Your task to perform on an android device: turn off location history Image 0: 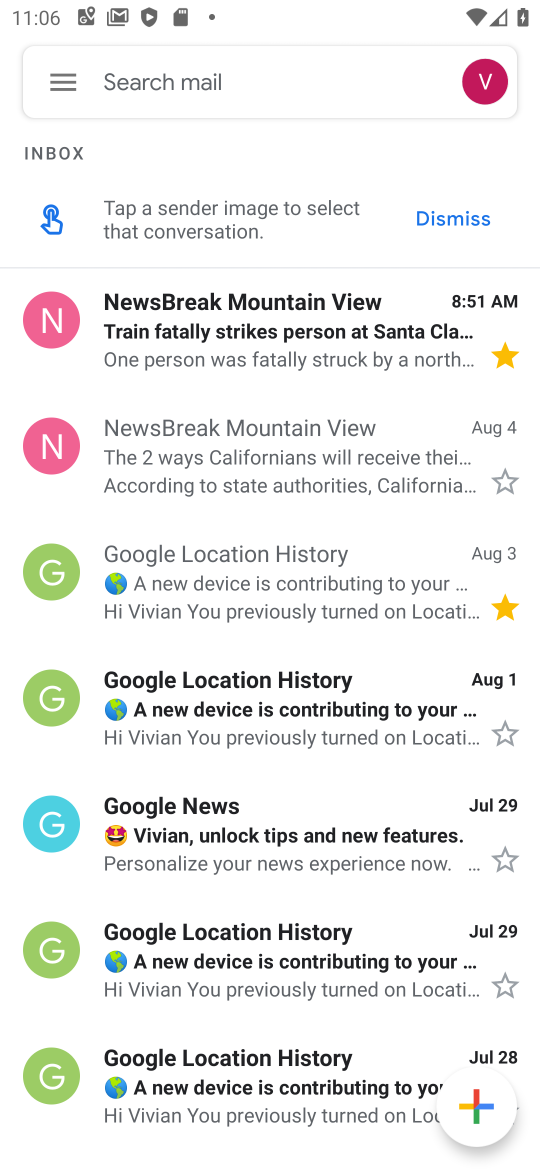
Step 0: press home button
Your task to perform on an android device: turn off location history Image 1: 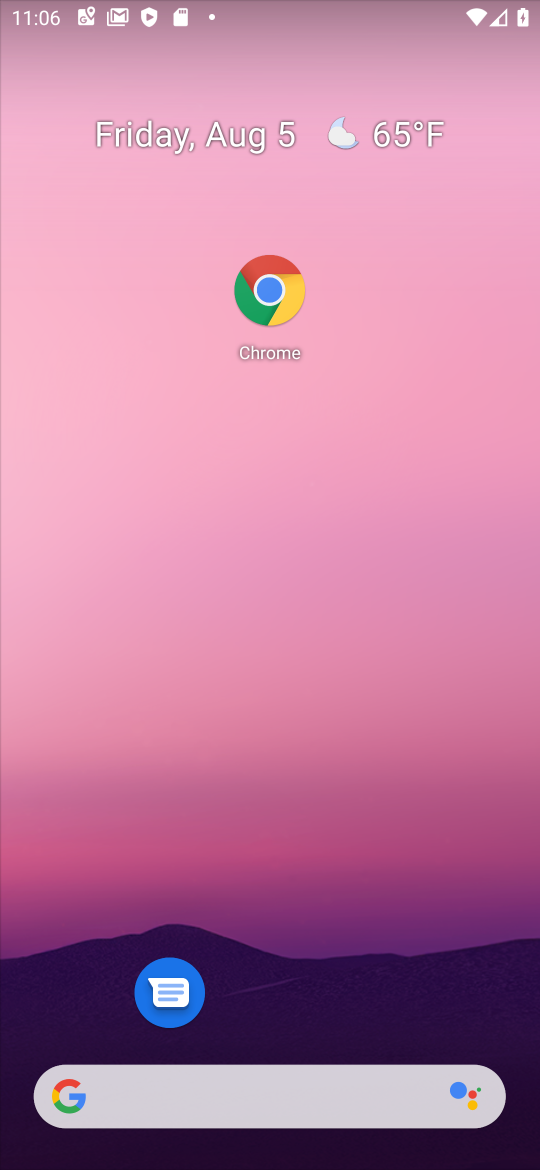
Step 1: drag from (417, 921) to (380, 87)
Your task to perform on an android device: turn off location history Image 2: 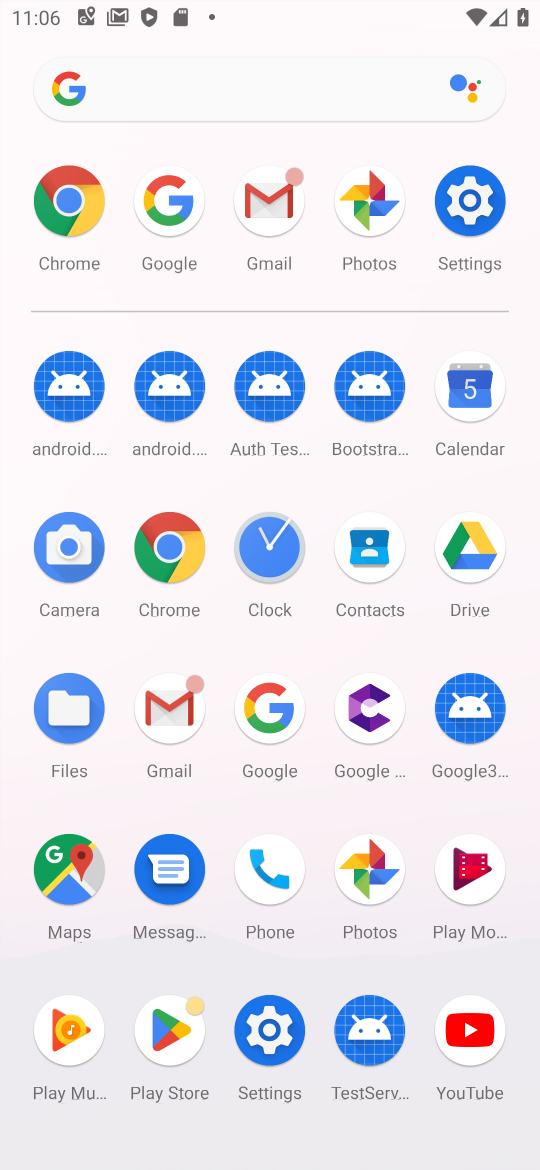
Step 2: click (492, 195)
Your task to perform on an android device: turn off location history Image 3: 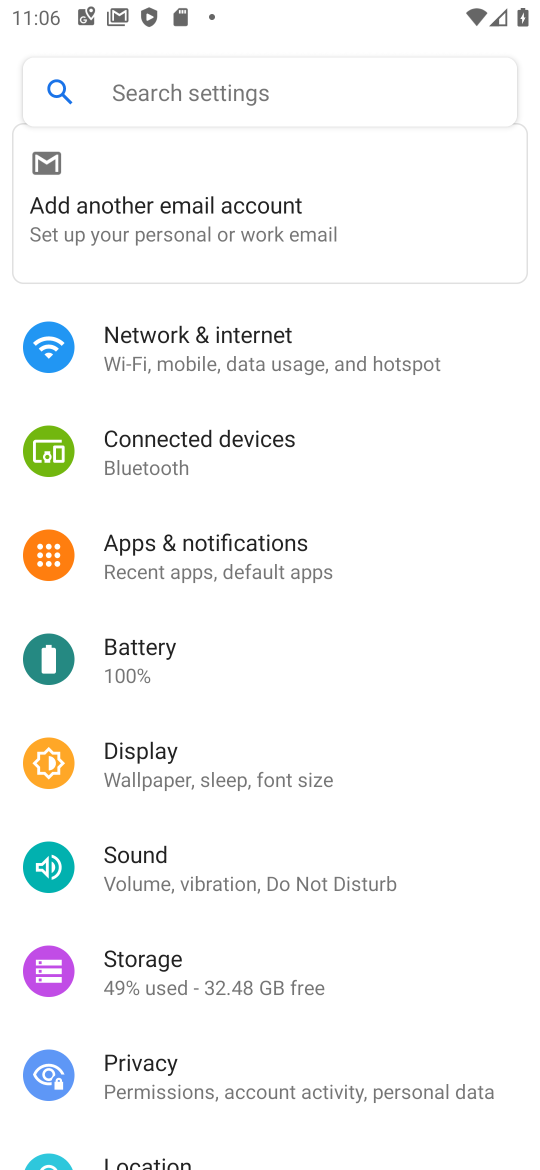
Step 3: drag from (170, 1028) to (133, 487)
Your task to perform on an android device: turn off location history Image 4: 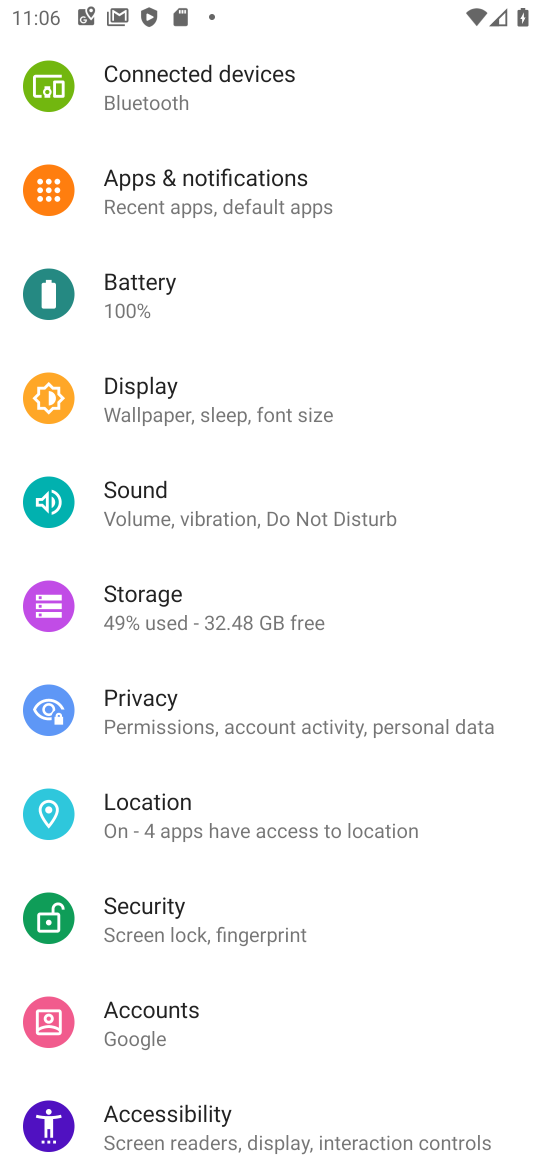
Step 4: click (141, 810)
Your task to perform on an android device: turn off location history Image 5: 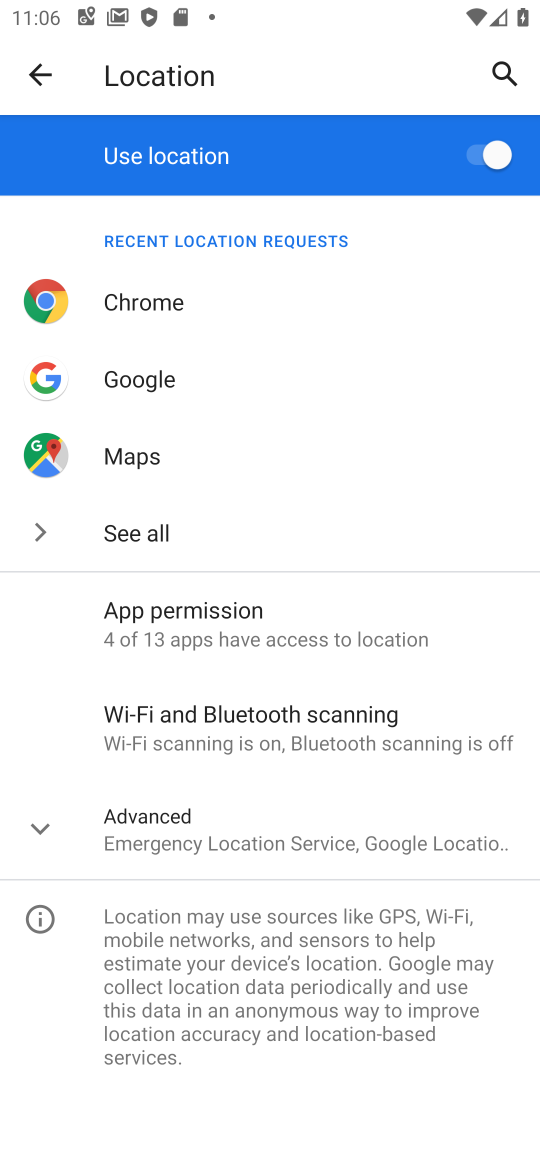
Step 5: click (163, 853)
Your task to perform on an android device: turn off location history Image 6: 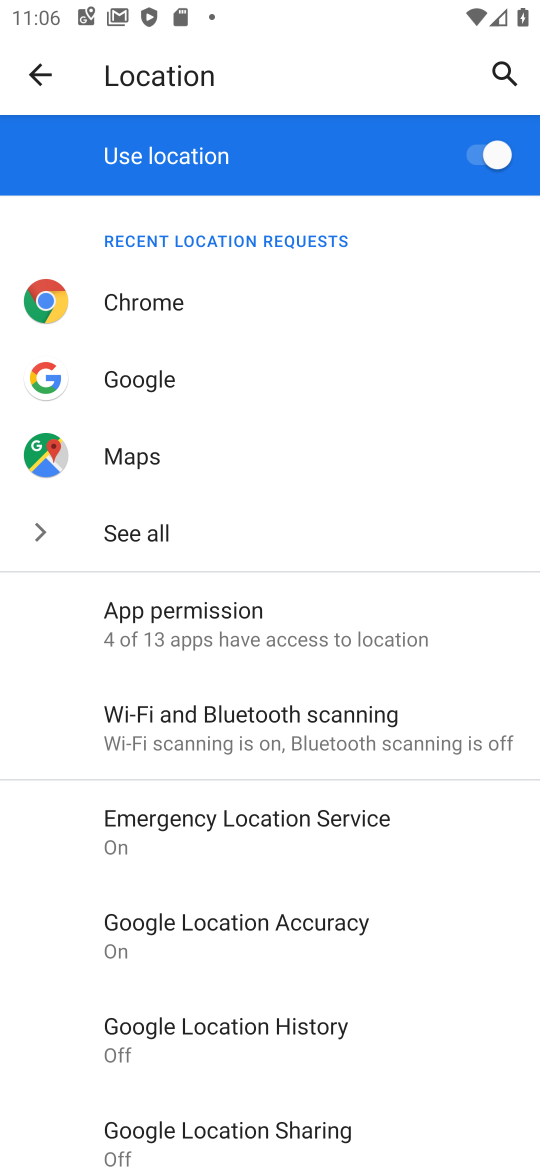
Step 6: click (260, 1039)
Your task to perform on an android device: turn off location history Image 7: 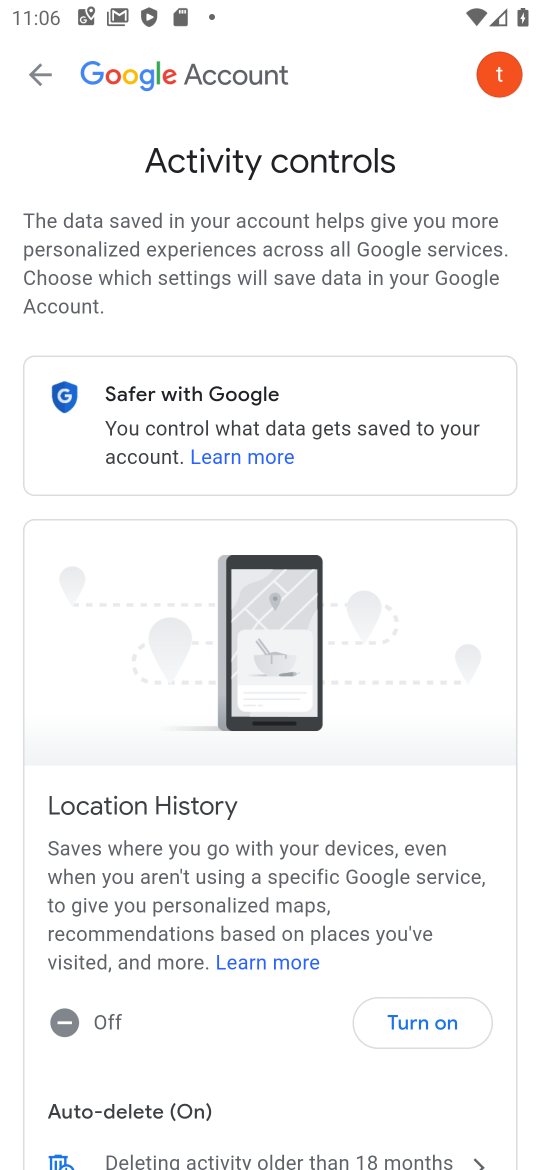
Step 7: task complete